Your task to perform on an android device: Open Google Chrome and click the shortcut for Amazon.com Image 0: 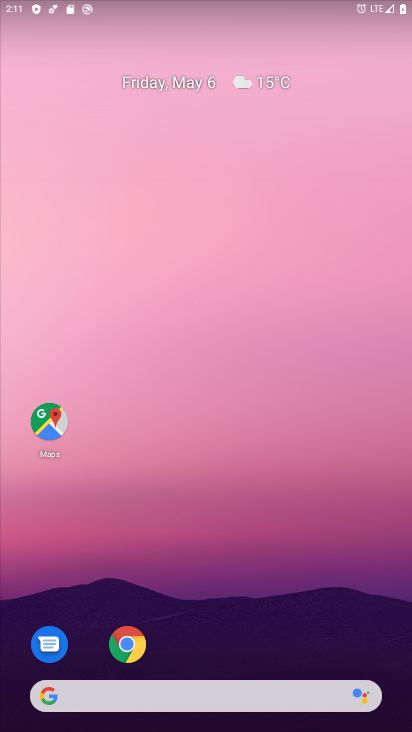
Step 0: click (119, 652)
Your task to perform on an android device: Open Google Chrome and click the shortcut for Amazon.com Image 1: 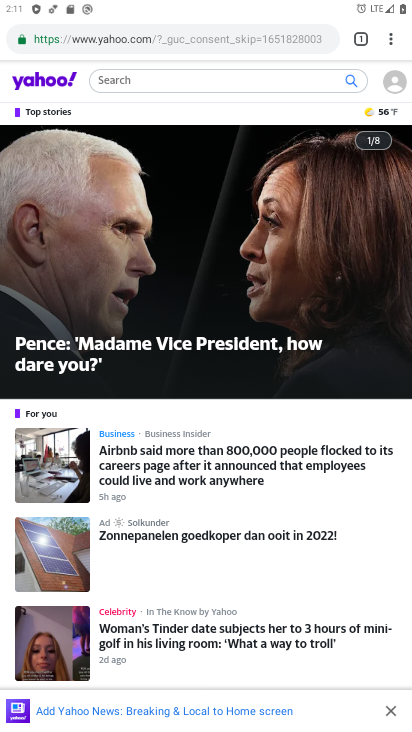
Step 1: click (361, 39)
Your task to perform on an android device: Open Google Chrome and click the shortcut for Amazon.com Image 2: 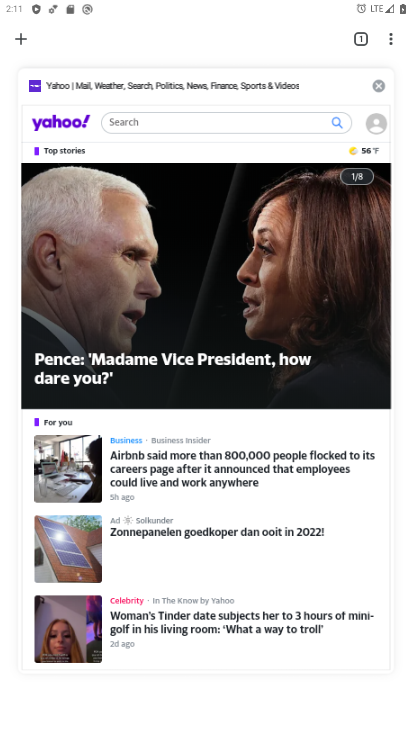
Step 2: click (21, 42)
Your task to perform on an android device: Open Google Chrome and click the shortcut for Amazon.com Image 3: 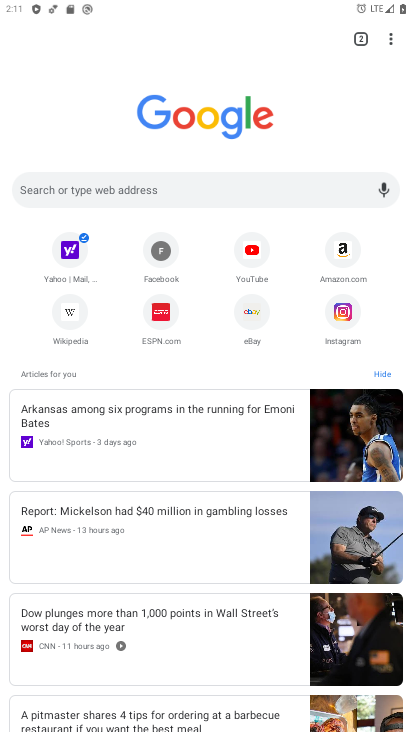
Step 3: click (341, 257)
Your task to perform on an android device: Open Google Chrome and click the shortcut for Amazon.com Image 4: 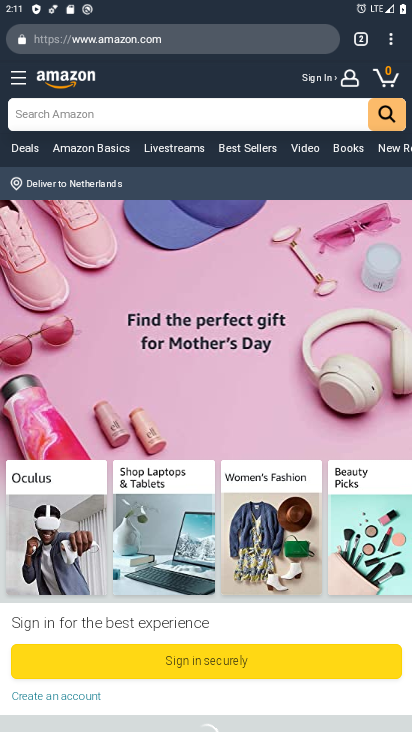
Step 4: task complete